Your task to perform on an android device: What's the weather today? Image 0: 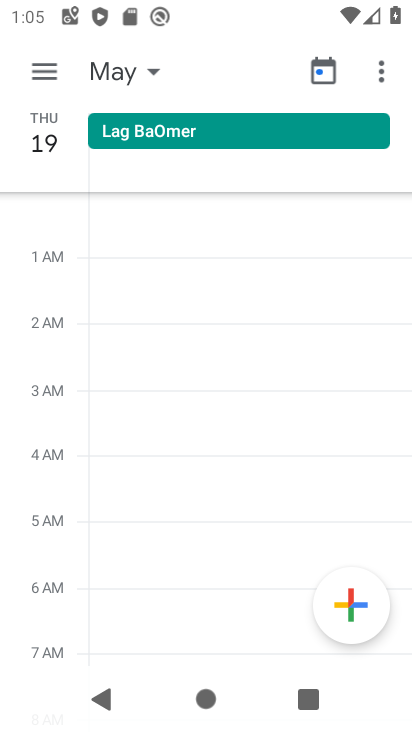
Step 0: press home button
Your task to perform on an android device: What's the weather today? Image 1: 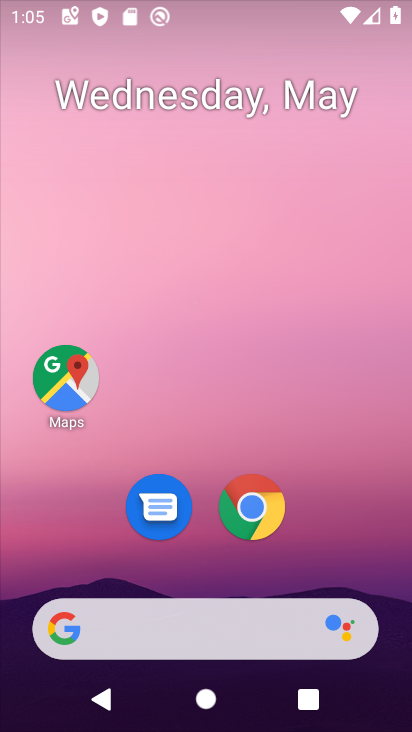
Step 1: drag from (329, 555) to (283, 176)
Your task to perform on an android device: What's the weather today? Image 2: 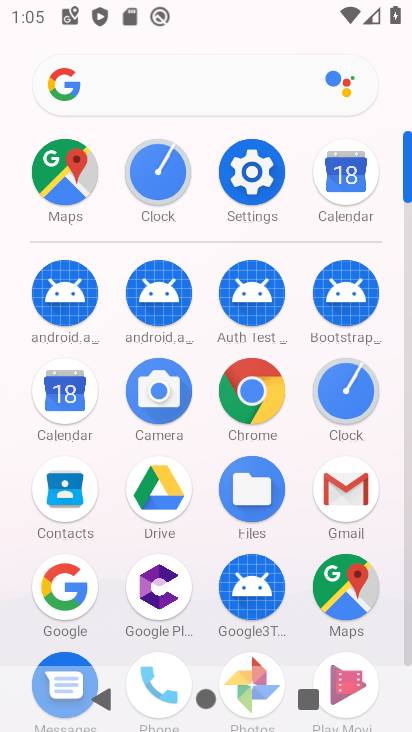
Step 2: click (231, 375)
Your task to perform on an android device: What's the weather today? Image 3: 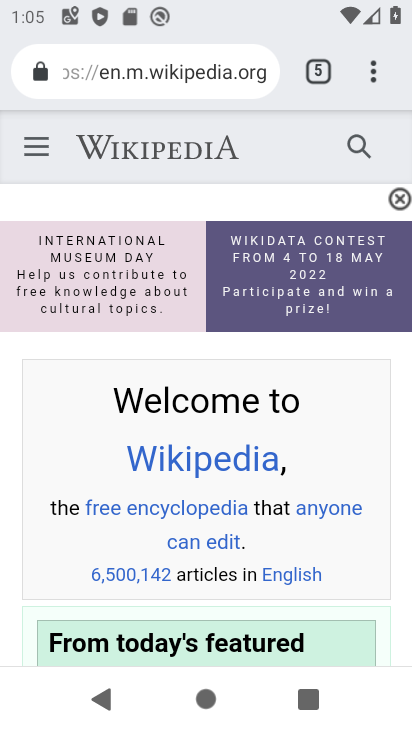
Step 3: click (364, 68)
Your task to perform on an android device: What's the weather today? Image 4: 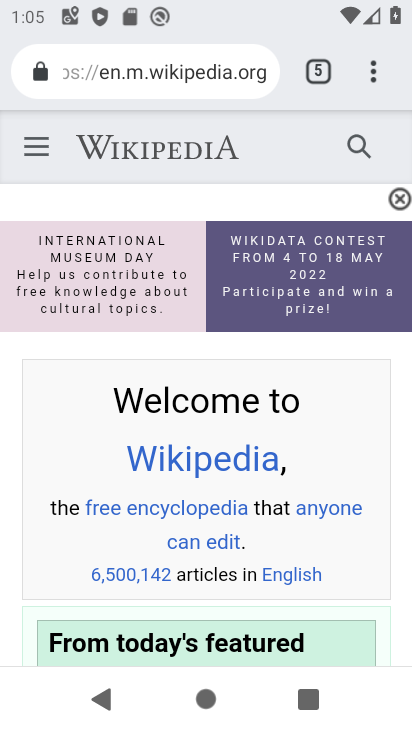
Step 4: click (377, 63)
Your task to perform on an android device: What's the weather today? Image 5: 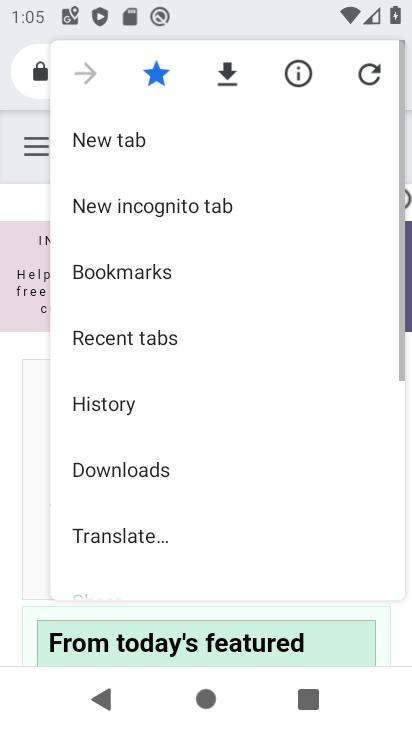
Step 5: click (116, 153)
Your task to perform on an android device: What's the weather today? Image 6: 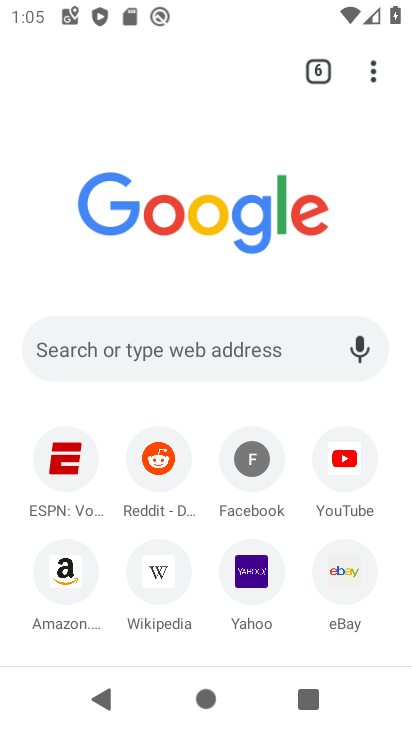
Step 6: click (230, 346)
Your task to perform on an android device: What's the weather today? Image 7: 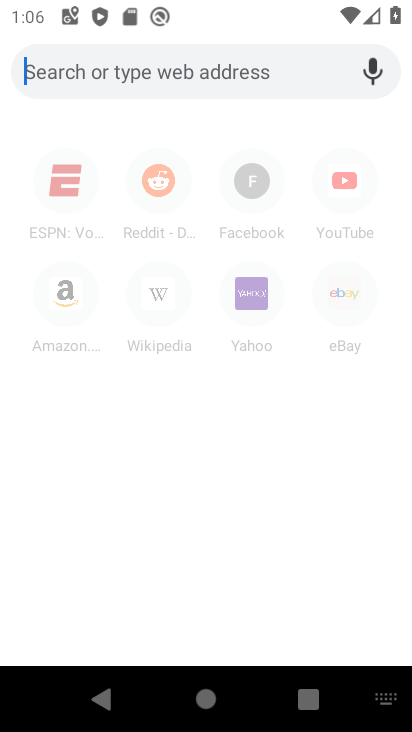
Step 7: type "What's the weather today?"
Your task to perform on an android device: What's the weather today? Image 8: 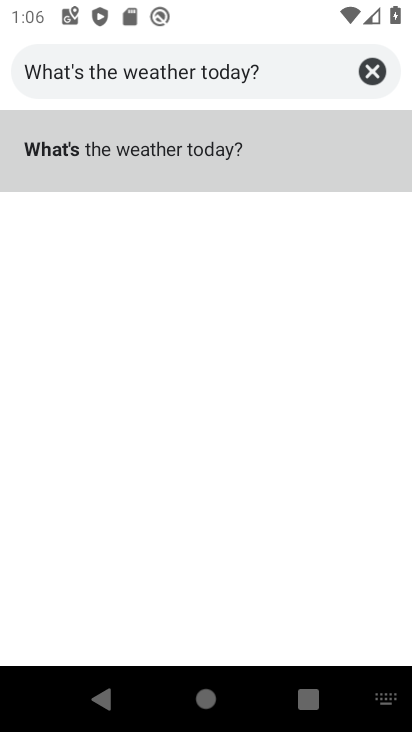
Step 8: click (191, 171)
Your task to perform on an android device: What's the weather today? Image 9: 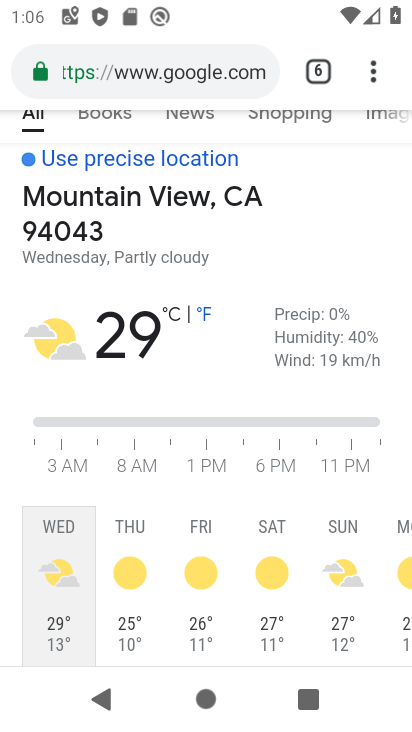
Step 9: task complete